Your task to perform on an android device: toggle priority inbox in the gmail app Image 0: 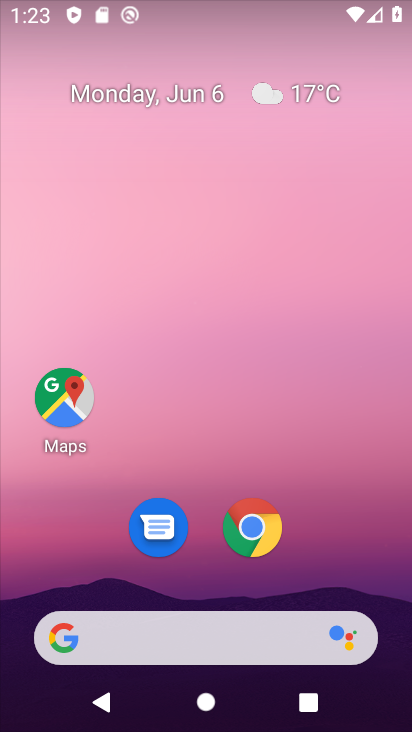
Step 0: drag from (225, 723) to (191, 66)
Your task to perform on an android device: toggle priority inbox in the gmail app Image 1: 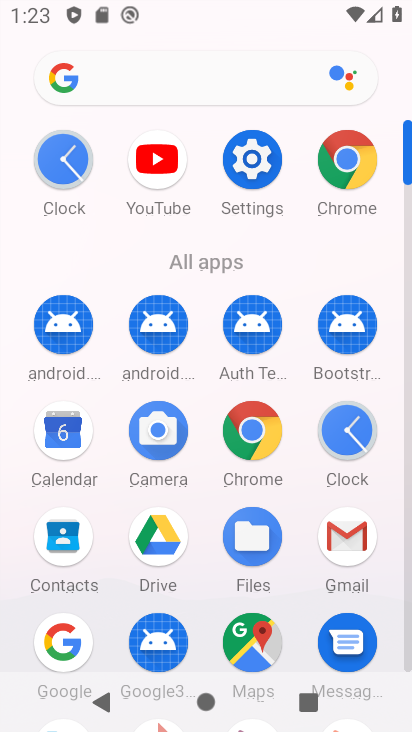
Step 1: click (350, 542)
Your task to perform on an android device: toggle priority inbox in the gmail app Image 2: 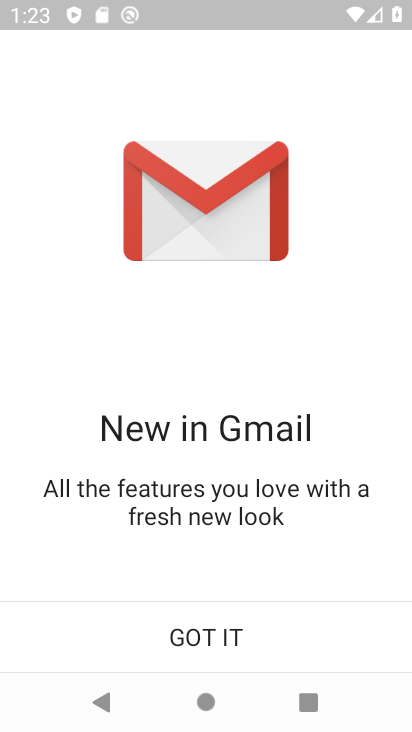
Step 2: click (195, 634)
Your task to perform on an android device: toggle priority inbox in the gmail app Image 3: 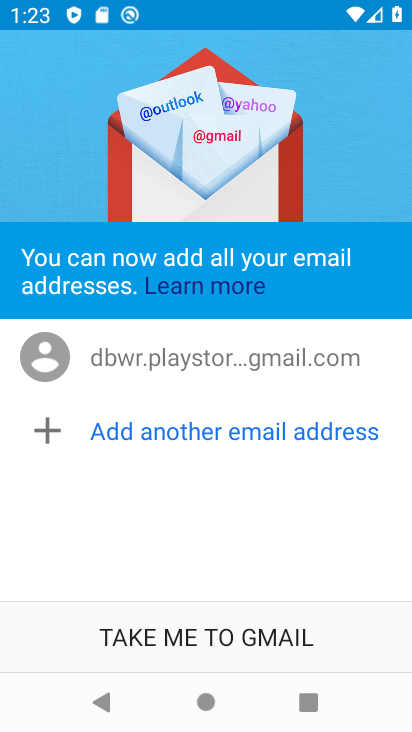
Step 3: click (208, 629)
Your task to perform on an android device: toggle priority inbox in the gmail app Image 4: 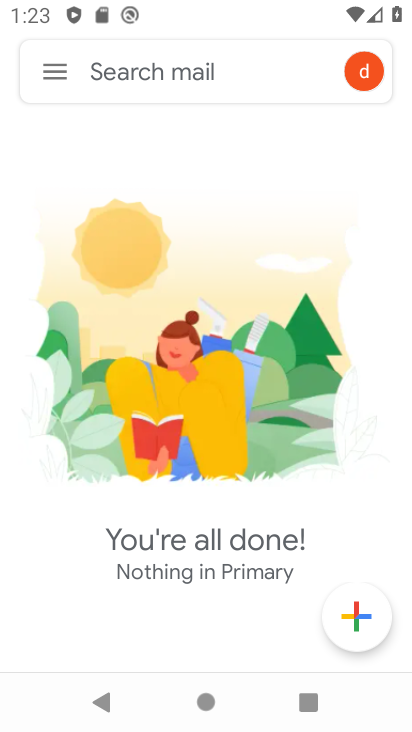
Step 4: click (59, 70)
Your task to perform on an android device: toggle priority inbox in the gmail app Image 5: 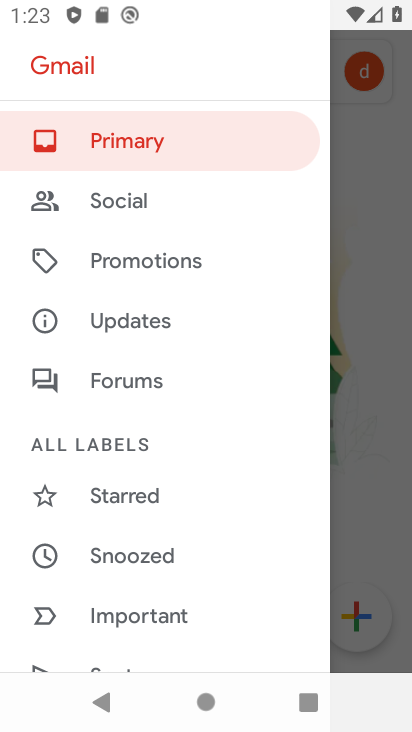
Step 5: drag from (161, 651) to (140, 219)
Your task to perform on an android device: toggle priority inbox in the gmail app Image 6: 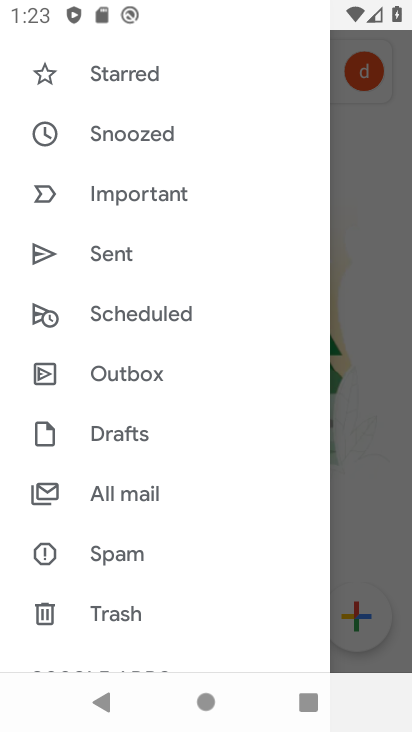
Step 6: drag from (148, 632) to (149, 248)
Your task to perform on an android device: toggle priority inbox in the gmail app Image 7: 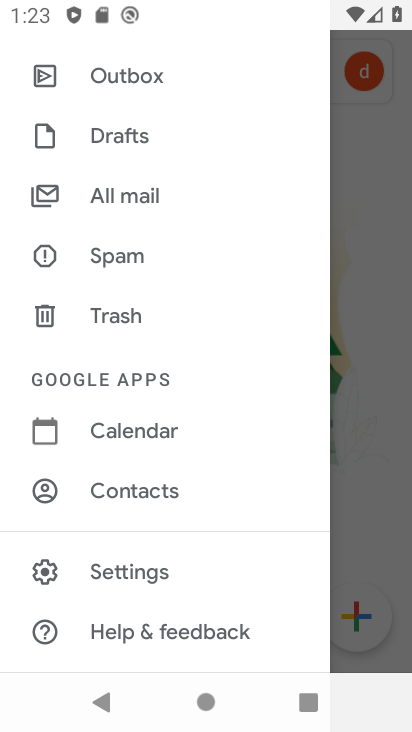
Step 7: click (153, 571)
Your task to perform on an android device: toggle priority inbox in the gmail app Image 8: 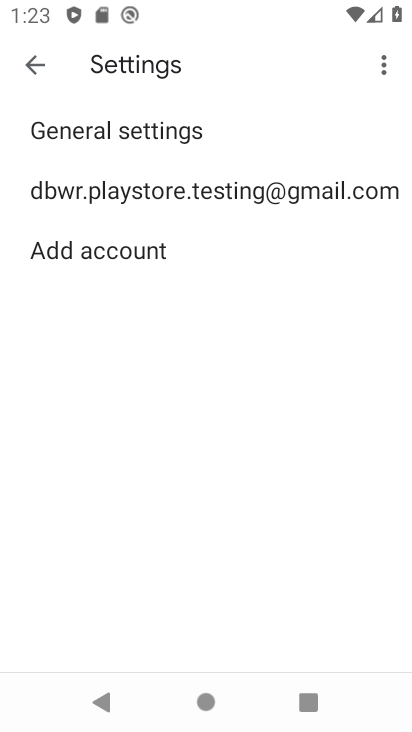
Step 8: click (166, 179)
Your task to perform on an android device: toggle priority inbox in the gmail app Image 9: 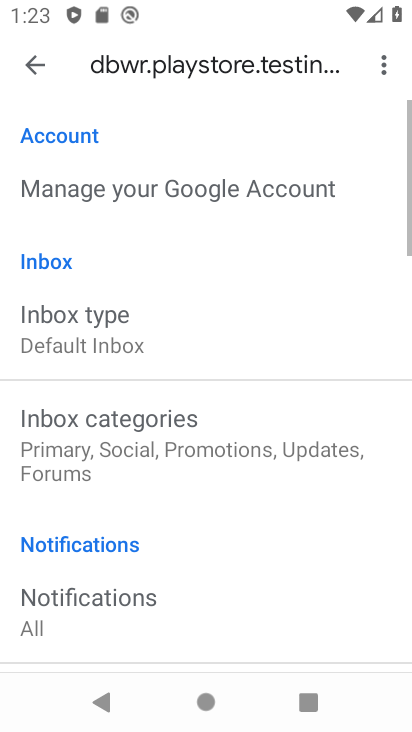
Step 9: click (84, 338)
Your task to perform on an android device: toggle priority inbox in the gmail app Image 10: 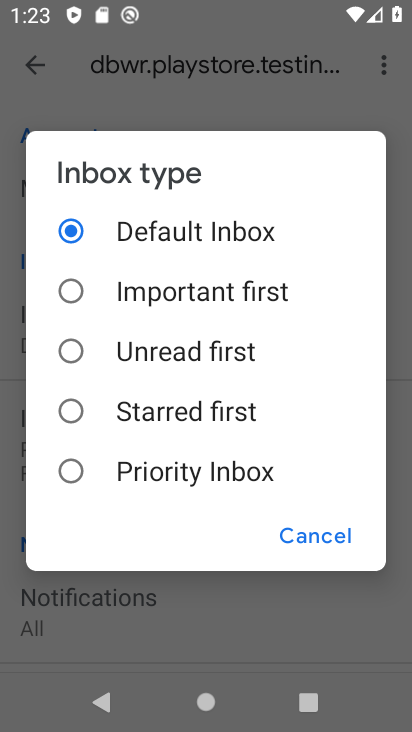
Step 10: click (75, 472)
Your task to perform on an android device: toggle priority inbox in the gmail app Image 11: 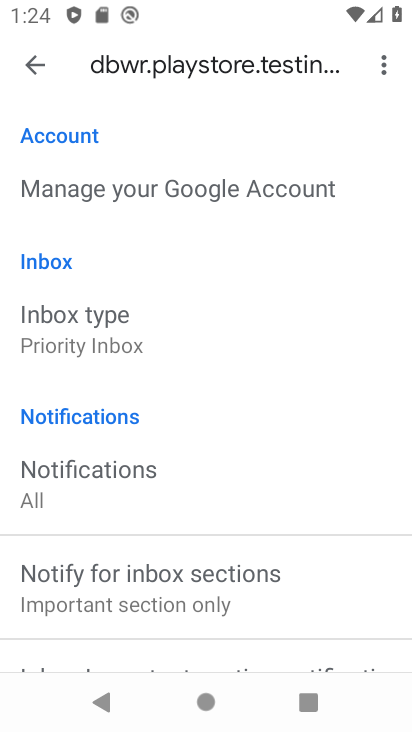
Step 11: task complete